Your task to perform on an android device: Open eBay Image 0: 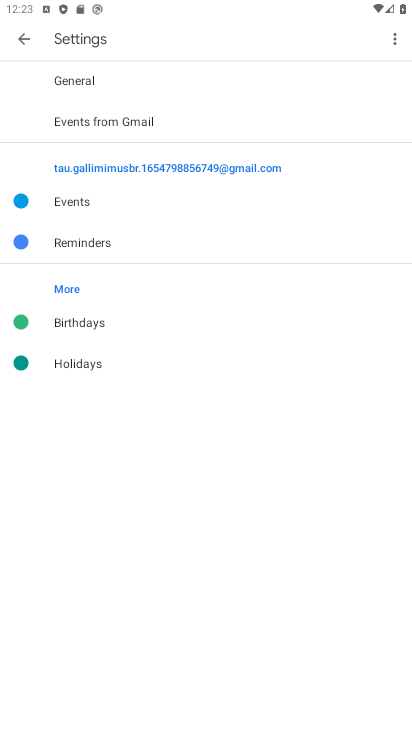
Step 0: press home button
Your task to perform on an android device: Open eBay Image 1: 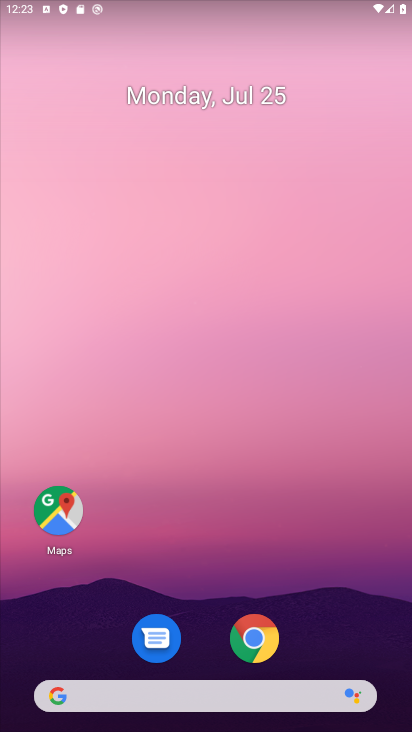
Step 1: click (248, 641)
Your task to perform on an android device: Open eBay Image 2: 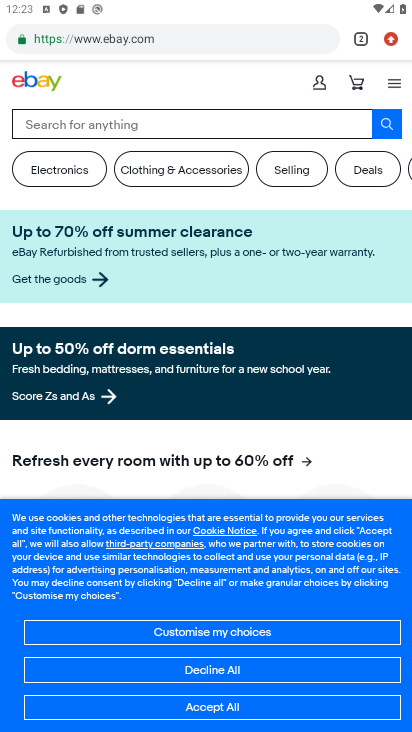
Step 2: task complete